Your task to perform on an android device: Open Amazon Image 0: 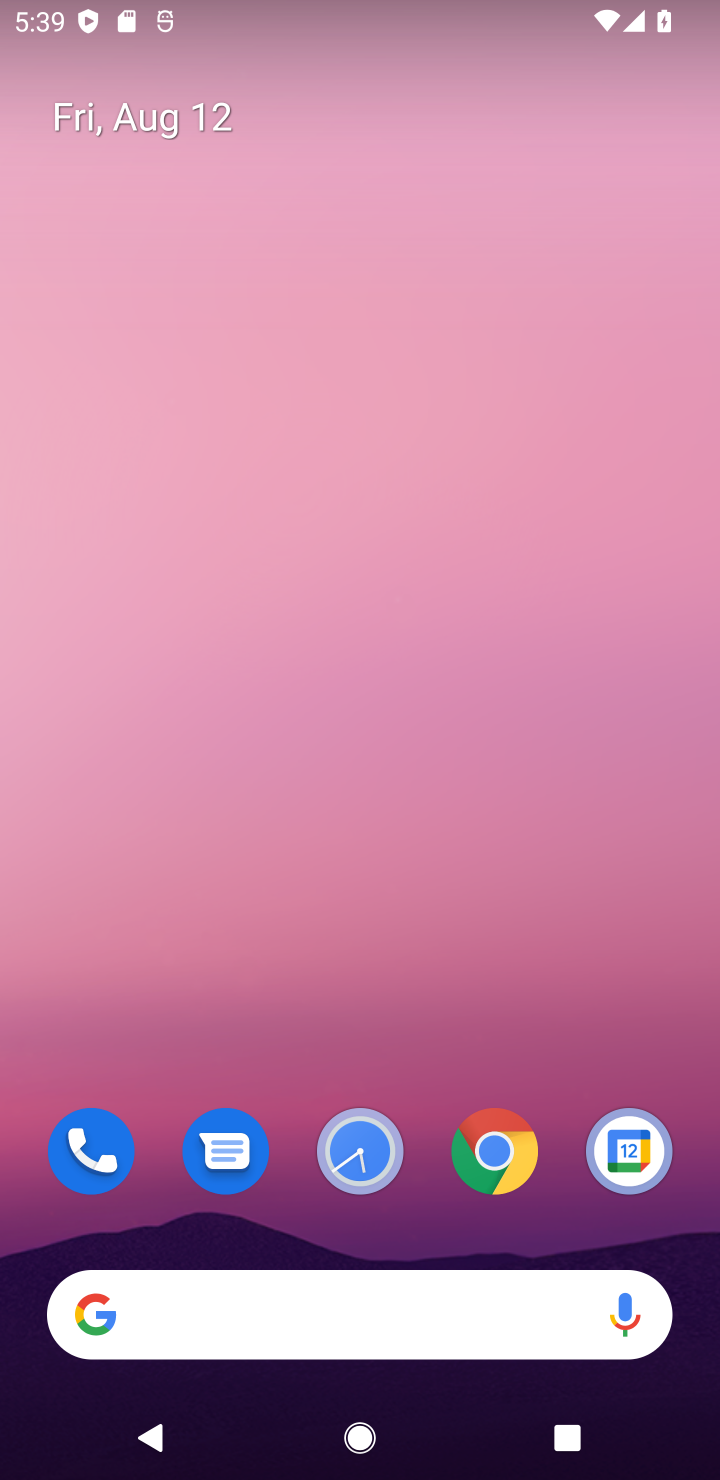
Step 0: drag from (622, 1019) to (603, 190)
Your task to perform on an android device: Open Amazon Image 1: 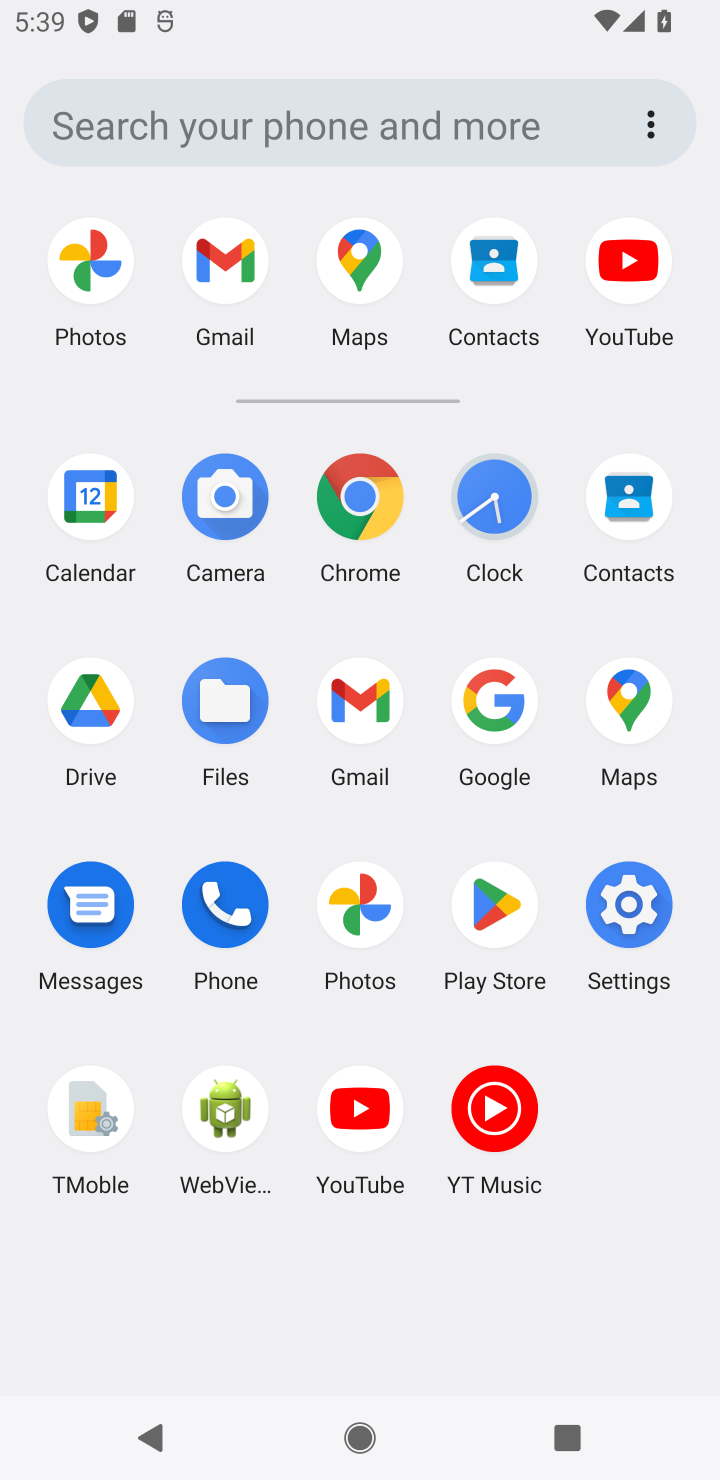
Step 1: click (369, 473)
Your task to perform on an android device: Open Amazon Image 2: 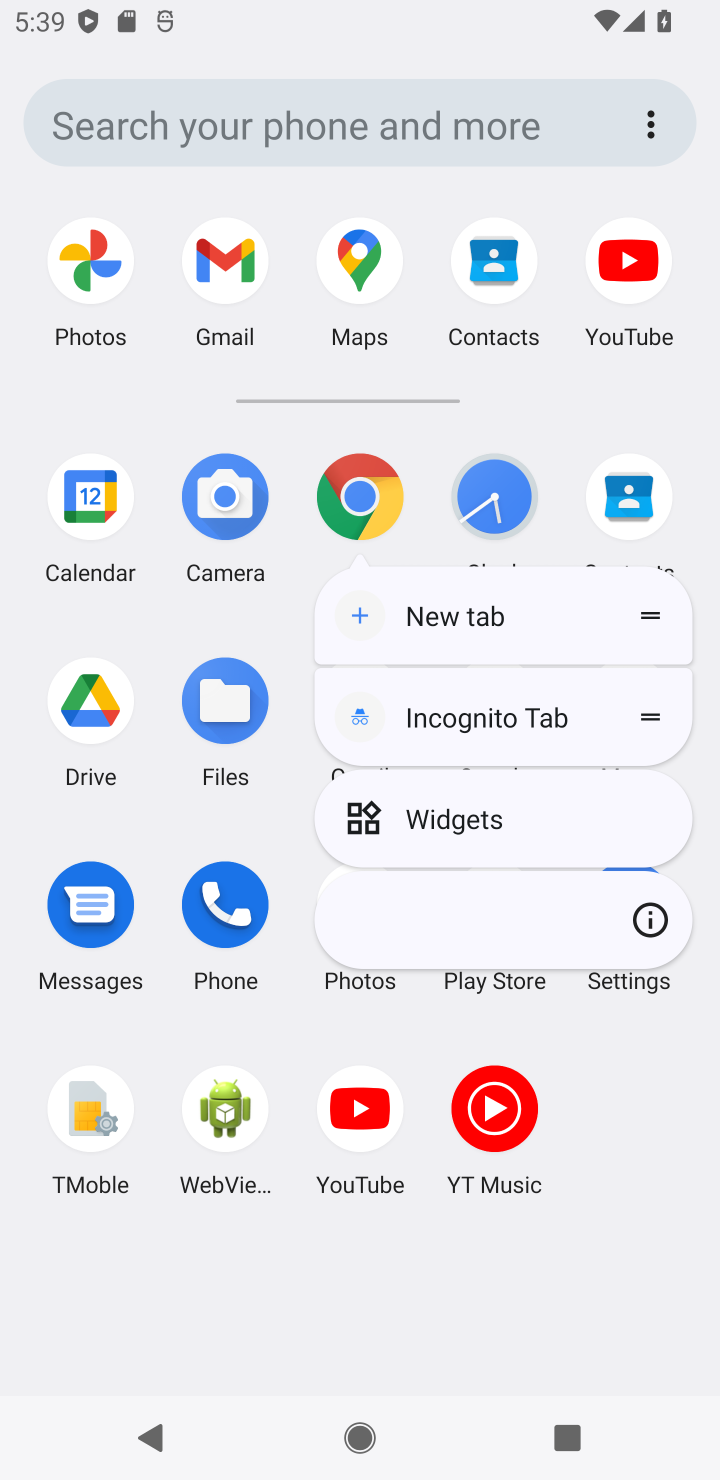
Step 2: click (368, 498)
Your task to perform on an android device: Open Amazon Image 3: 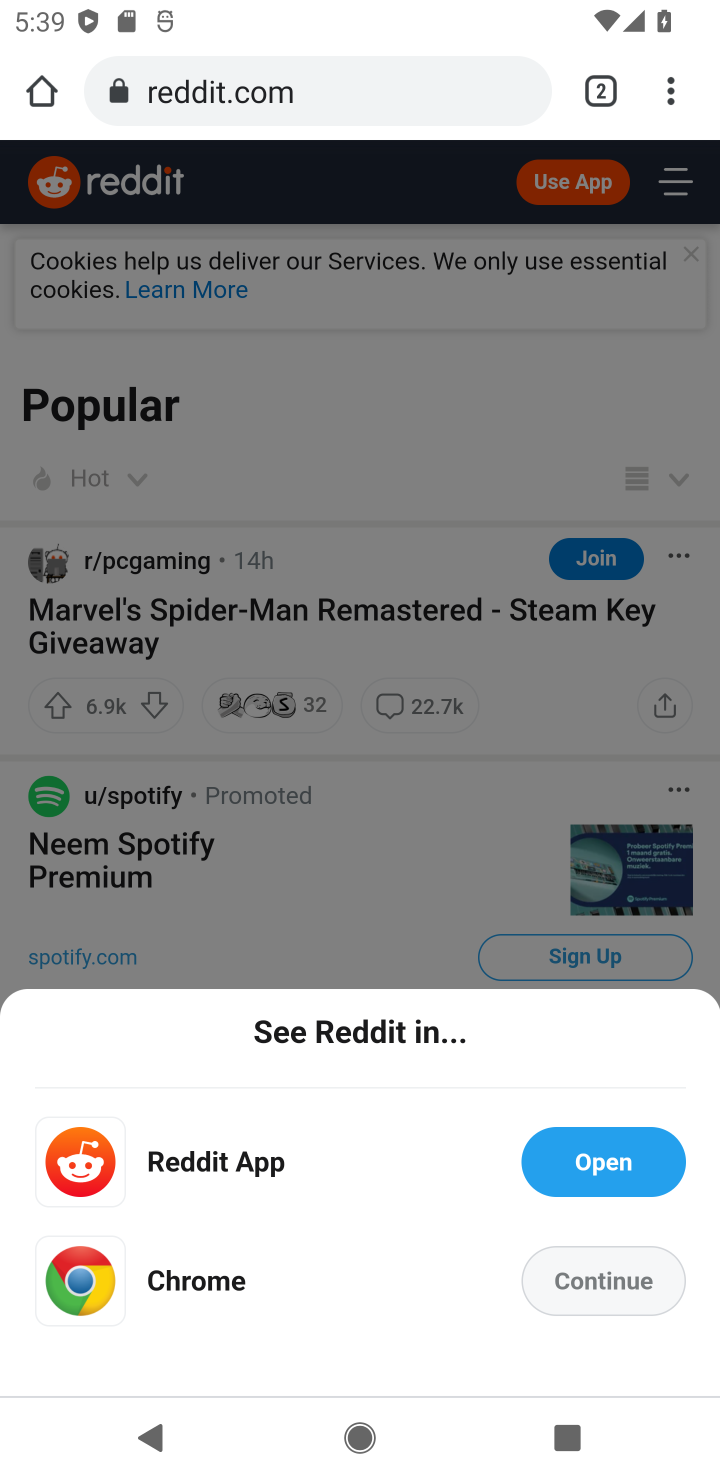
Step 3: click (435, 106)
Your task to perform on an android device: Open Amazon Image 4: 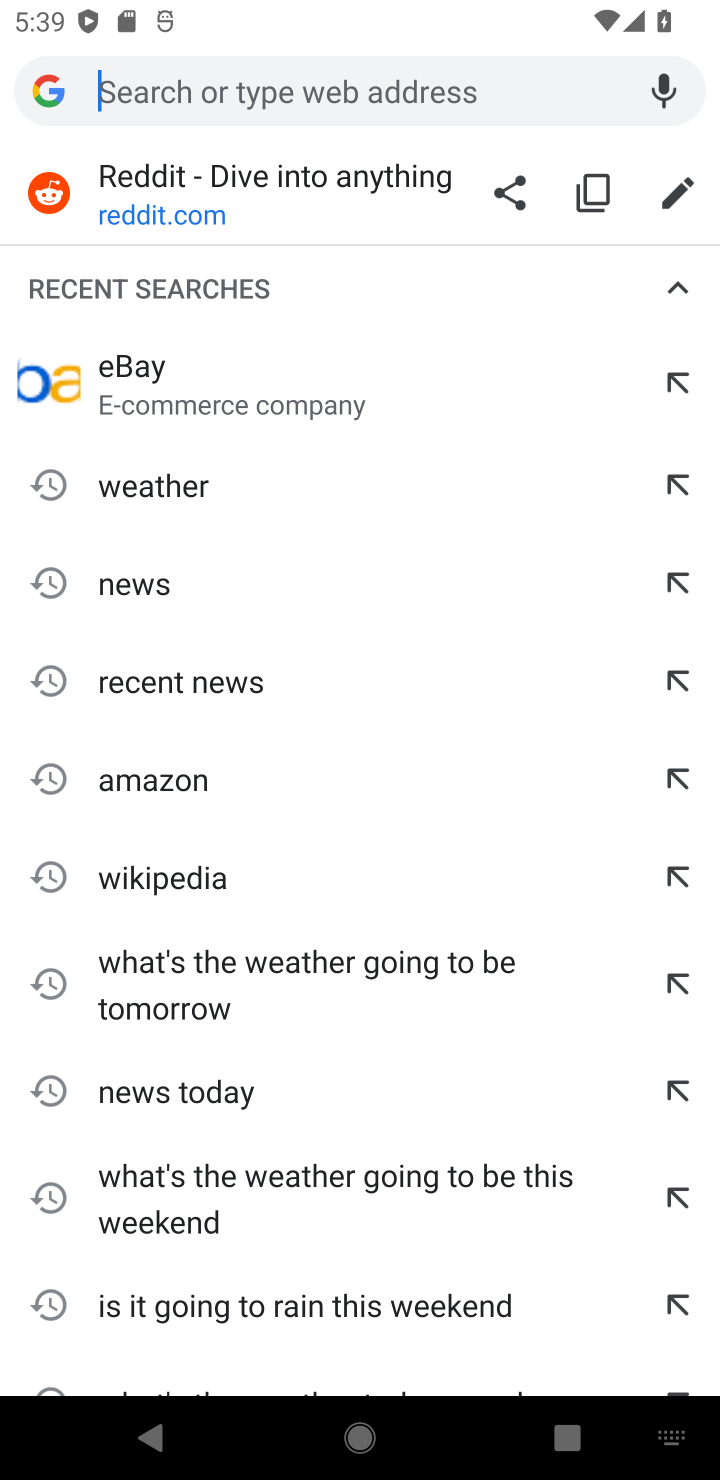
Step 4: type "amazon"
Your task to perform on an android device: Open Amazon Image 5: 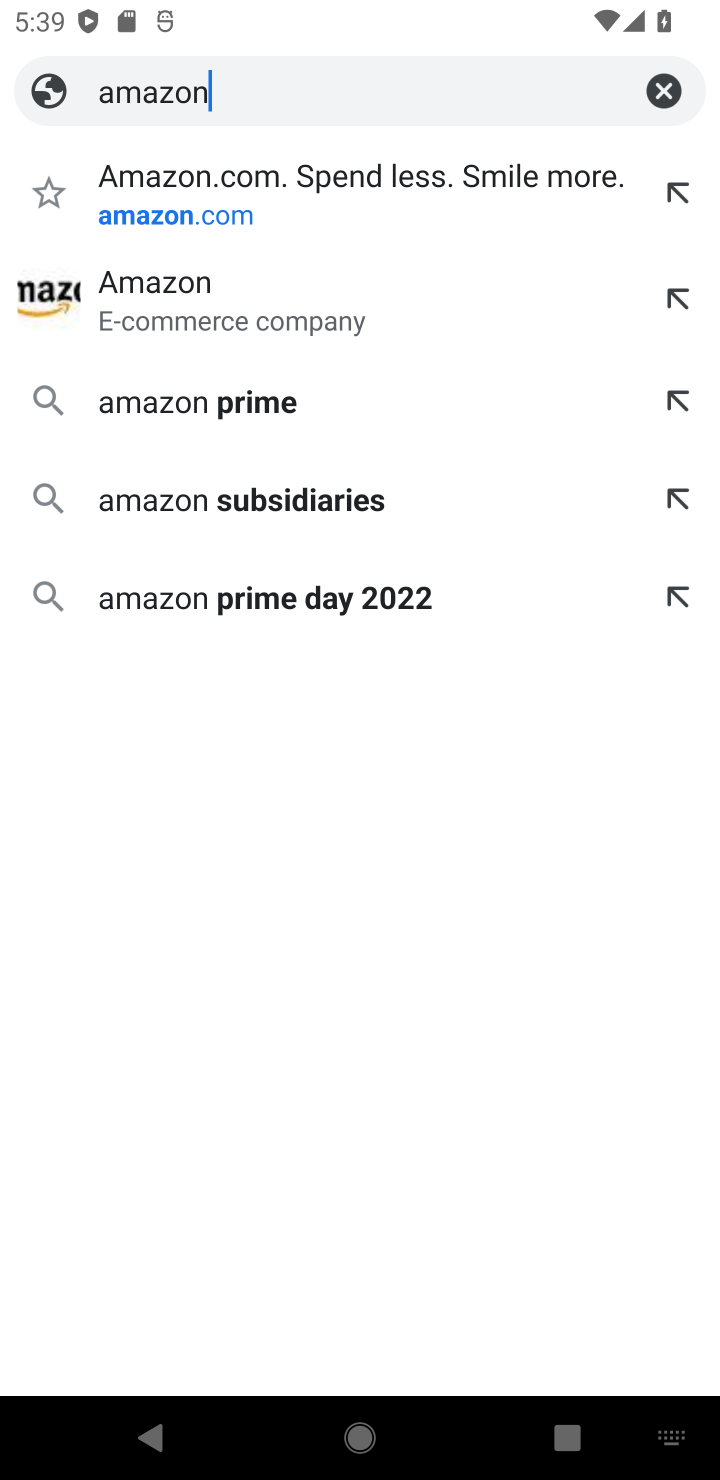
Step 5: click (173, 217)
Your task to perform on an android device: Open Amazon Image 6: 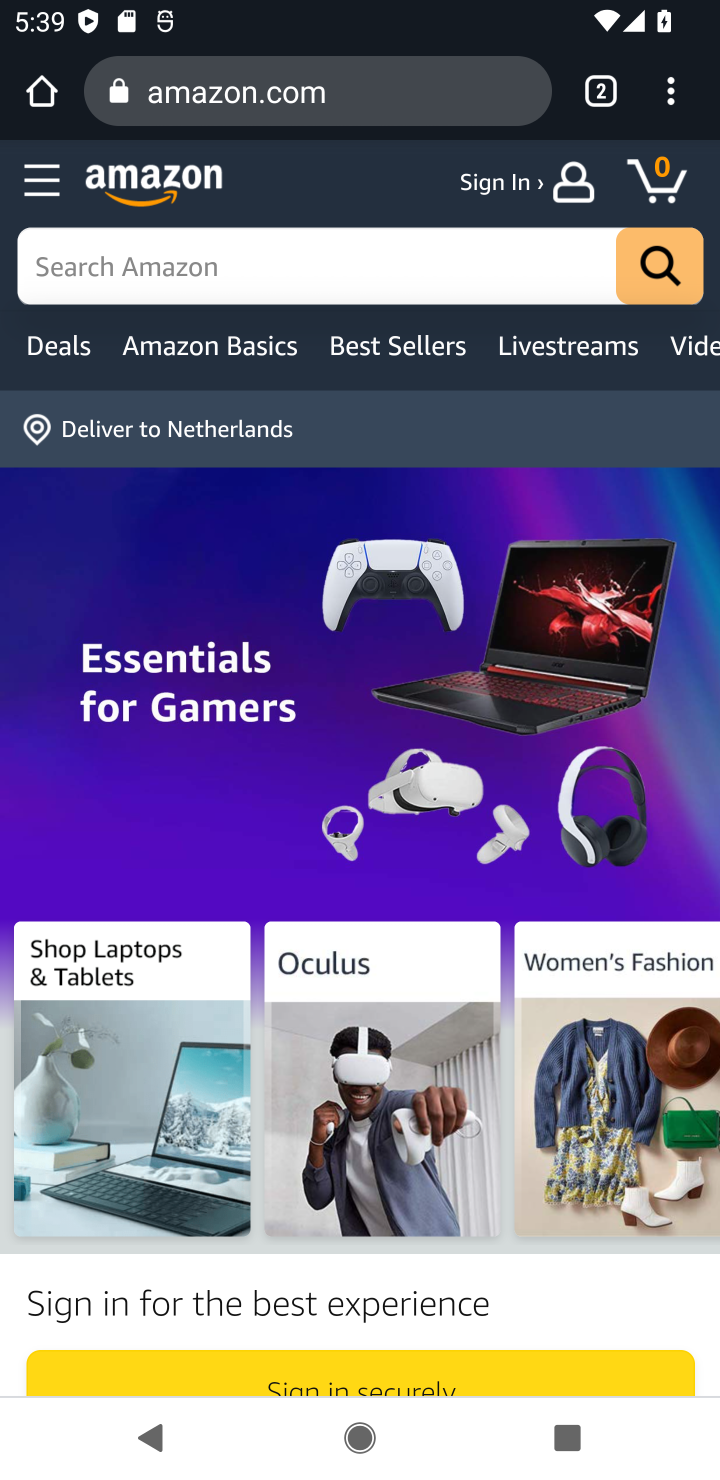
Step 6: task complete